Your task to perform on an android device: Go to accessibility settings Image 0: 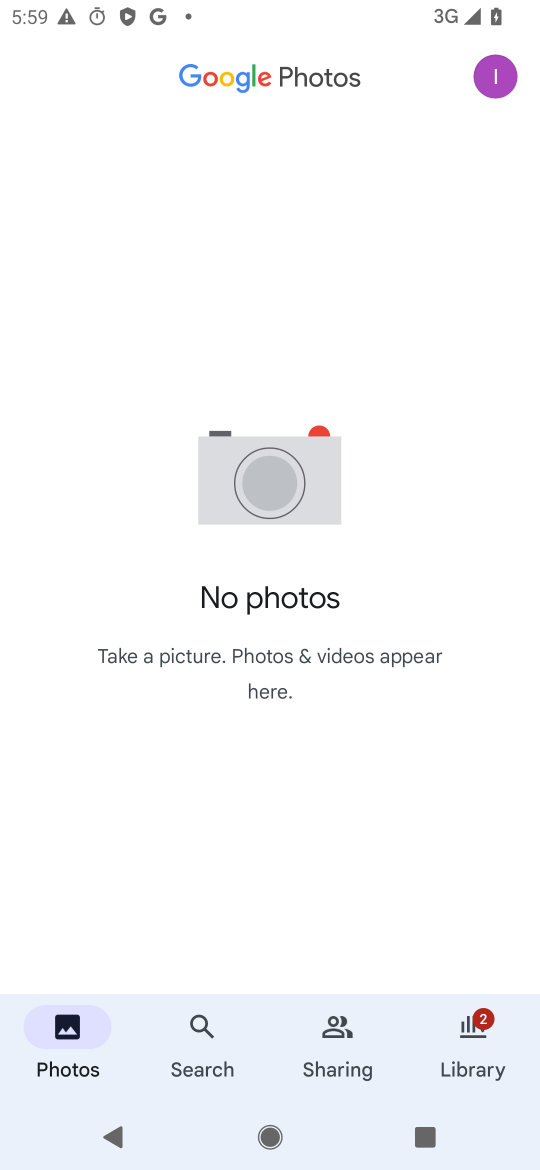
Step 0: press home button
Your task to perform on an android device: Go to accessibility settings Image 1: 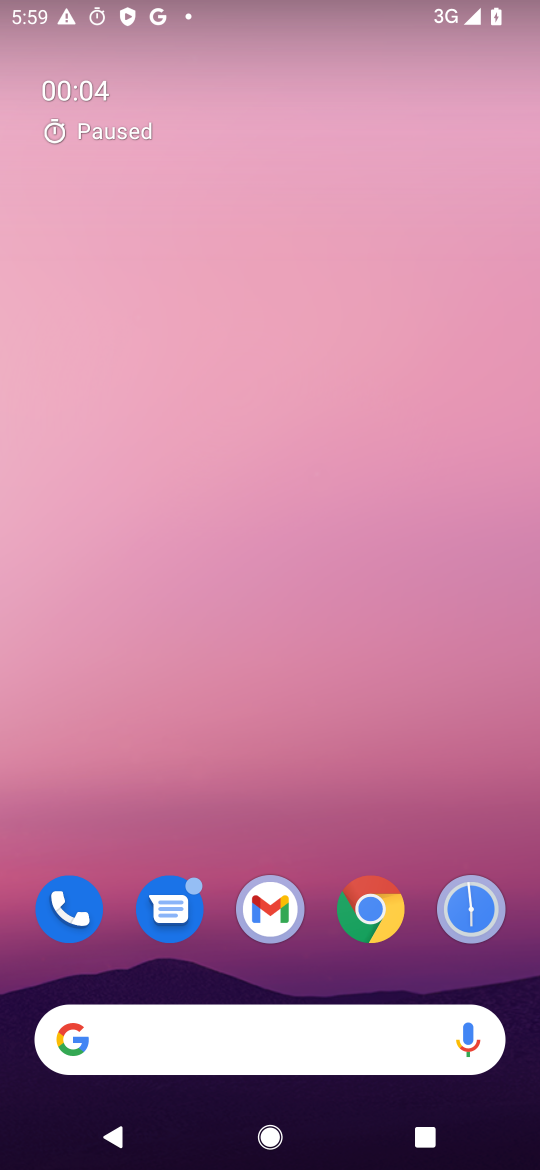
Step 1: drag from (222, 1047) to (477, 218)
Your task to perform on an android device: Go to accessibility settings Image 2: 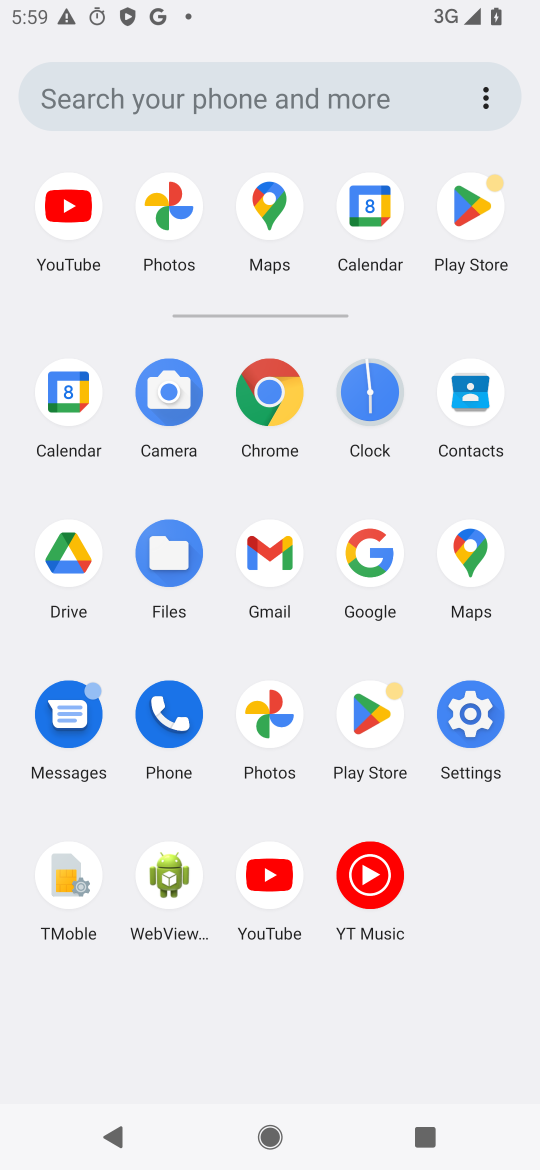
Step 2: click (469, 699)
Your task to perform on an android device: Go to accessibility settings Image 3: 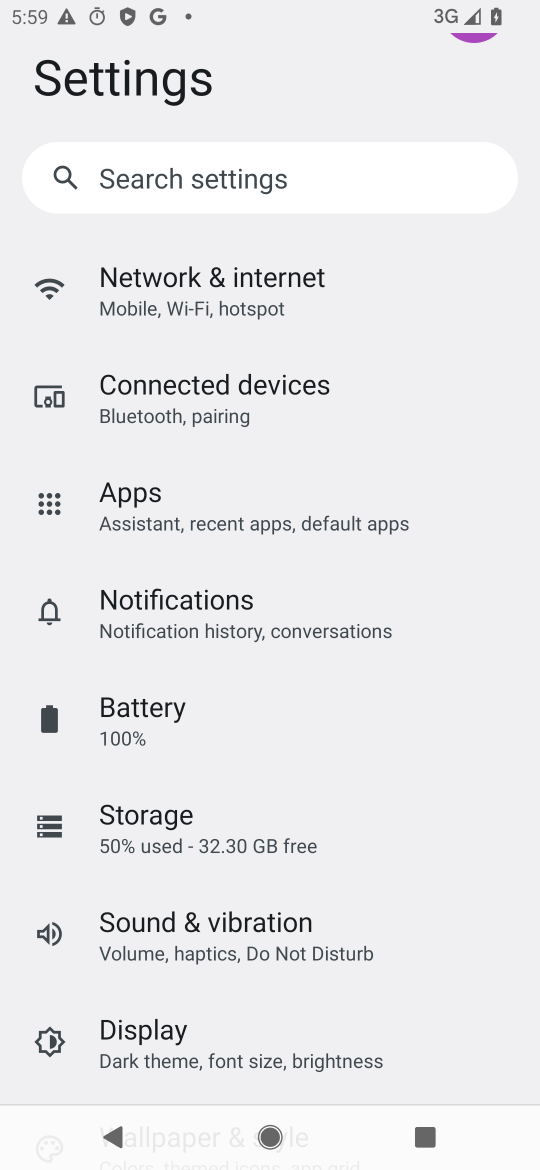
Step 3: drag from (358, 911) to (448, 159)
Your task to perform on an android device: Go to accessibility settings Image 4: 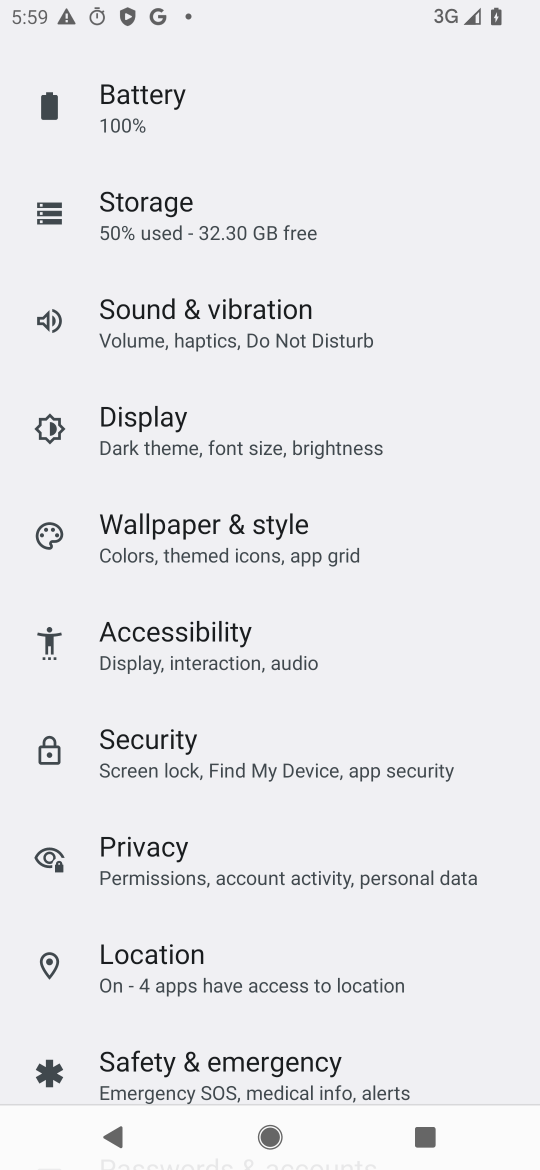
Step 4: click (196, 649)
Your task to perform on an android device: Go to accessibility settings Image 5: 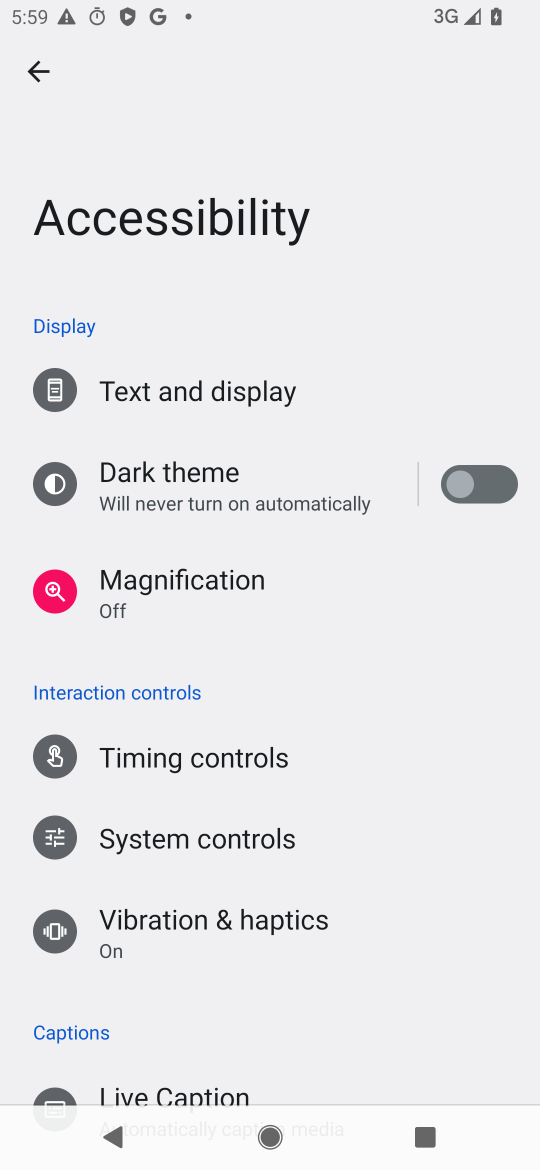
Step 5: task complete